Your task to perform on an android device: clear all cookies in the chrome app Image 0: 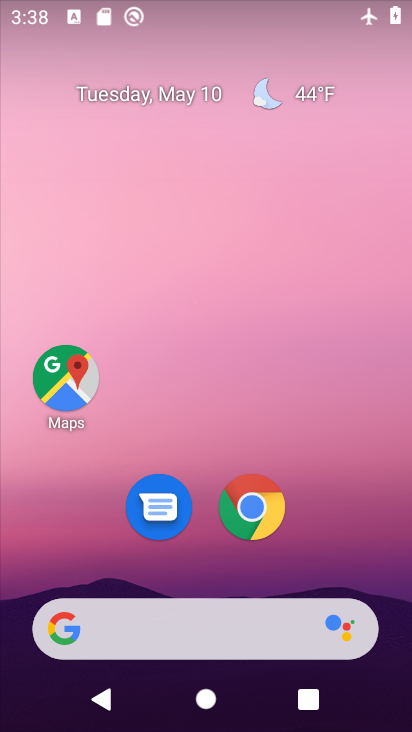
Step 0: click (253, 512)
Your task to perform on an android device: clear all cookies in the chrome app Image 1: 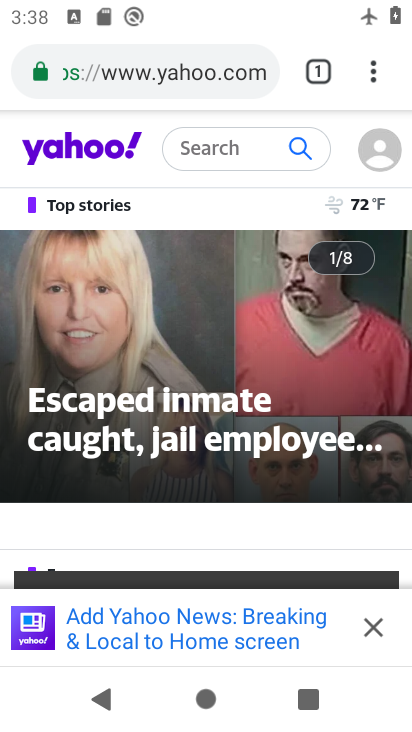
Step 1: click (369, 69)
Your task to perform on an android device: clear all cookies in the chrome app Image 2: 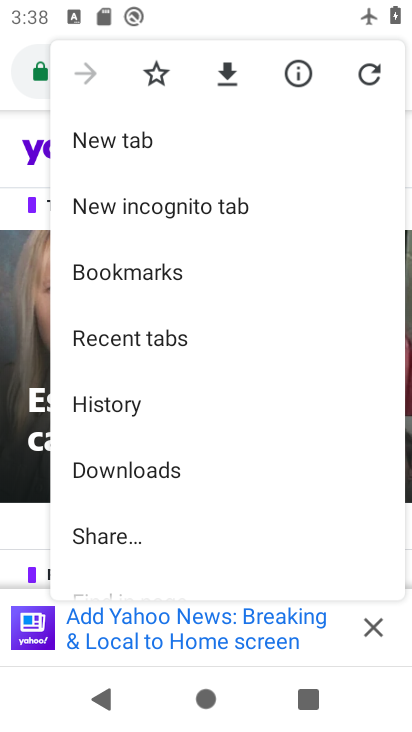
Step 2: click (134, 413)
Your task to perform on an android device: clear all cookies in the chrome app Image 3: 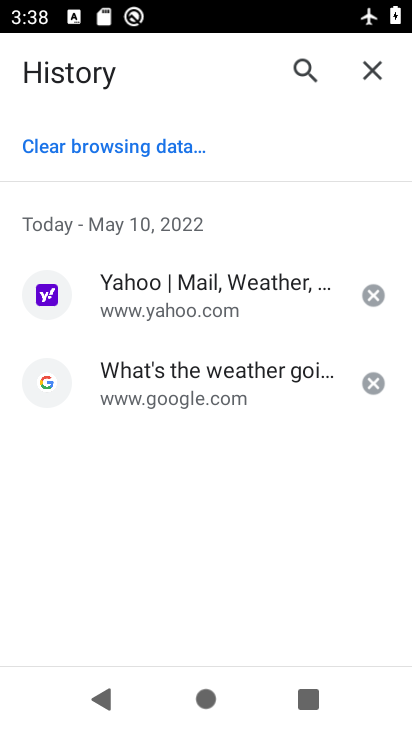
Step 3: click (141, 146)
Your task to perform on an android device: clear all cookies in the chrome app Image 4: 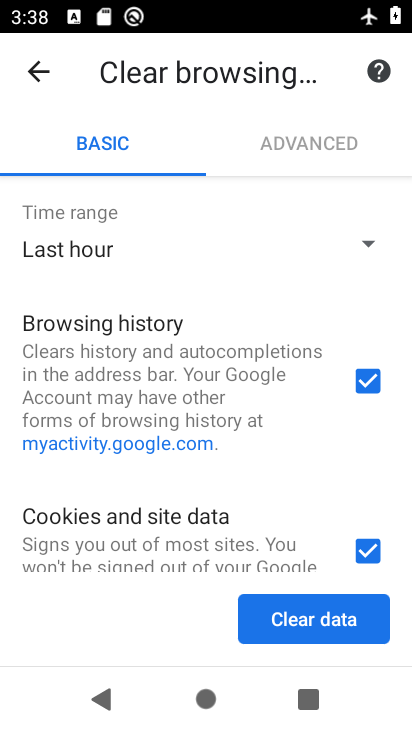
Step 4: click (366, 383)
Your task to perform on an android device: clear all cookies in the chrome app Image 5: 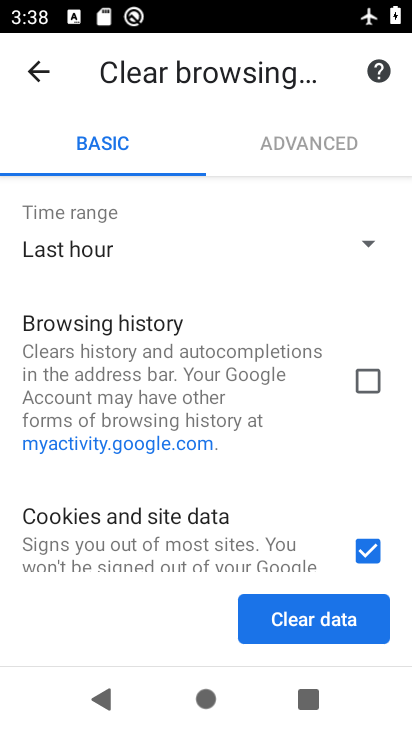
Step 5: drag from (297, 473) to (331, 250)
Your task to perform on an android device: clear all cookies in the chrome app Image 6: 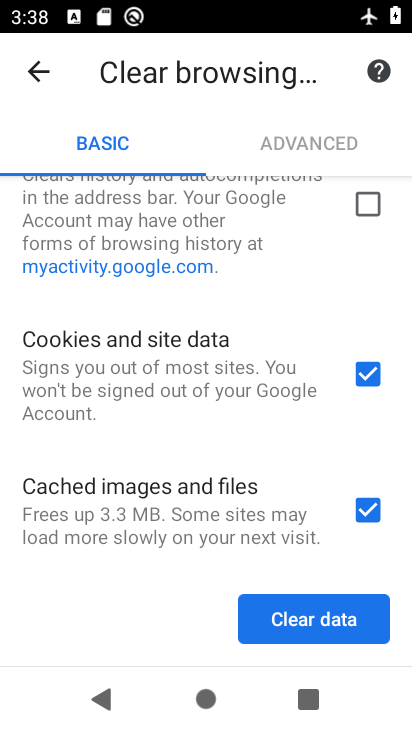
Step 6: click (365, 508)
Your task to perform on an android device: clear all cookies in the chrome app Image 7: 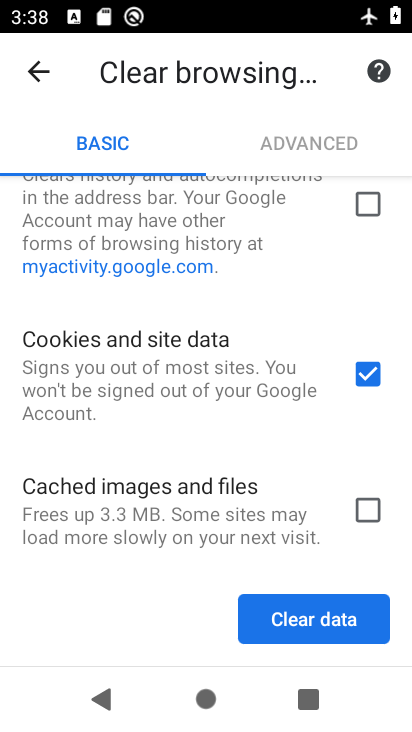
Step 7: click (336, 624)
Your task to perform on an android device: clear all cookies in the chrome app Image 8: 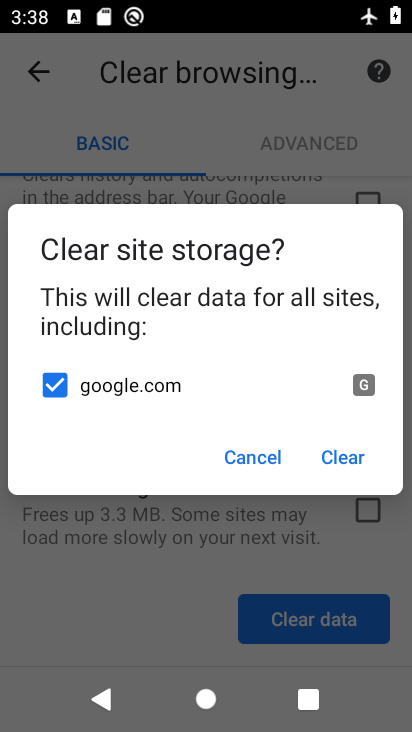
Step 8: click (352, 450)
Your task to perform on an android device: clear all cookies in the chrome app Image 9: 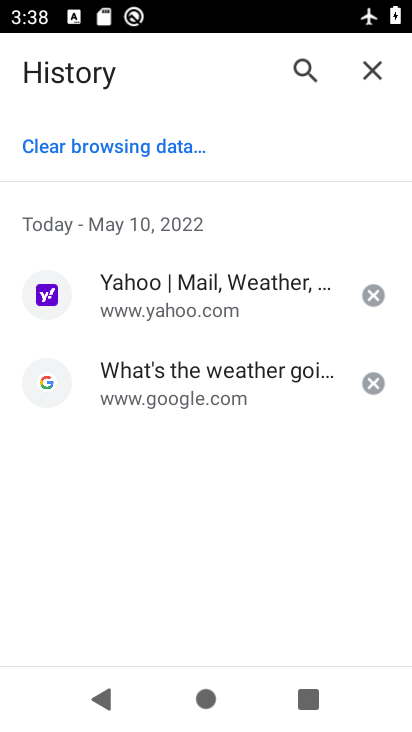
Step 9: task complete